Your task to perform on an android device: Open calendar and show me the fourth week of next month Image 0: 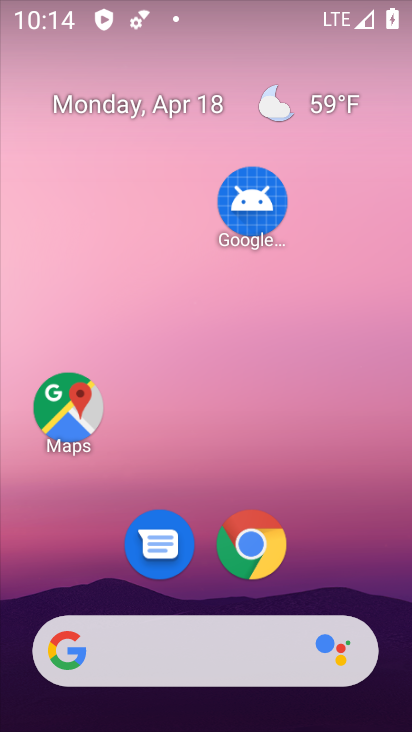
Step 0: drag from (352, 495) to (349, 198)
Your task to perform on an android device: Open calendar and show me the fourth week of next month Image 1: 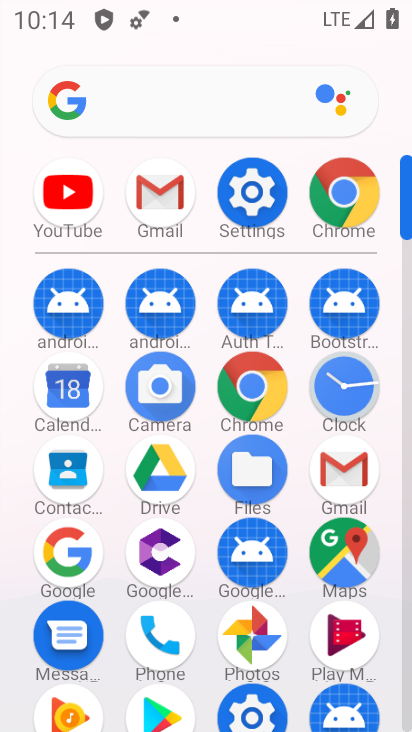
Step 1: drag from (185, 665) to (240, 359)
Your task to perform on an android device: Open calendar and show me the fourth week of next month Image 2: 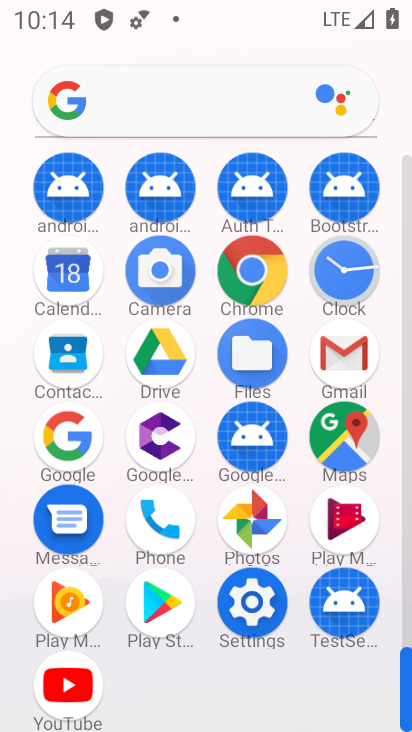
Step 2: click (58, 270)
Your task to perform on an android device: Open calendar and show me the fourth week of next month Image 3: 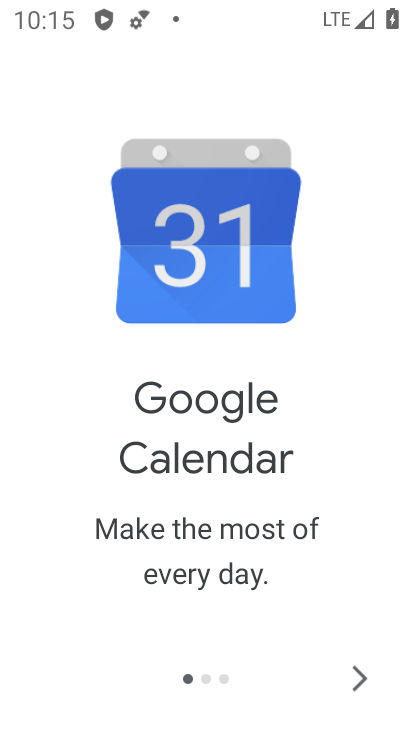
Step 3: click (333, 667)
Your task to perform on an android device: Open calendar and show me the fourth week of next month Image 4: 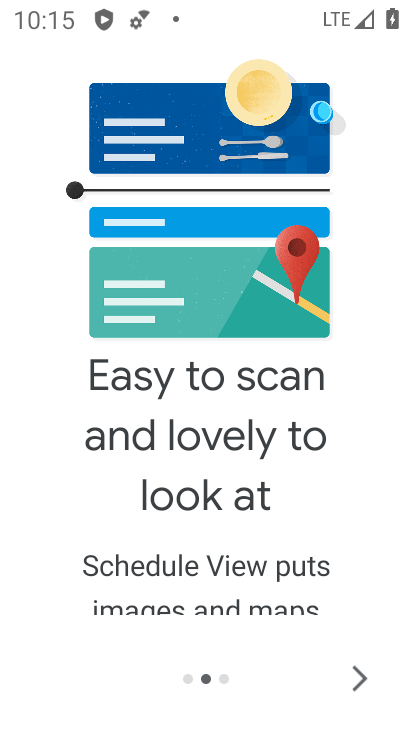
Step 4: click (353, 676)
Your task to perform on an android device: Open calendar and show me the fourth week of next month Image 5: 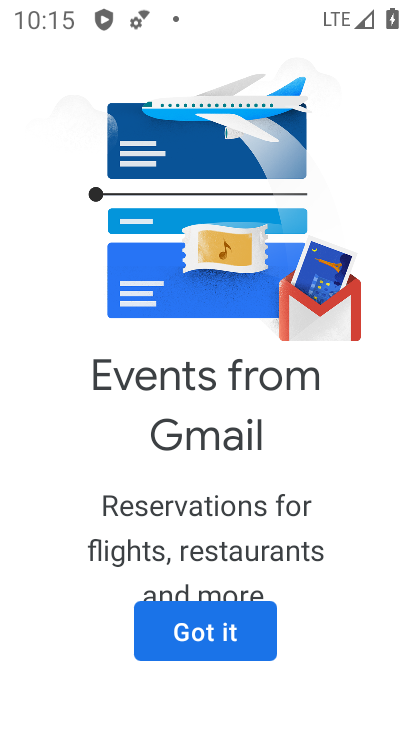
Step 5: click (190, 621)
Your task to perform on an android device: Open calendar and show me the fourth week of next month Image 6: 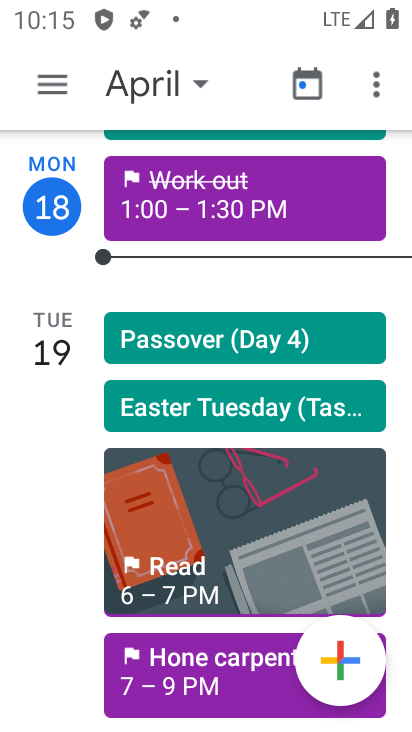
Step 6: click (42, 90)
Your task to perform on an android device: Open calendar and show me the fourth week of next month Image 7: 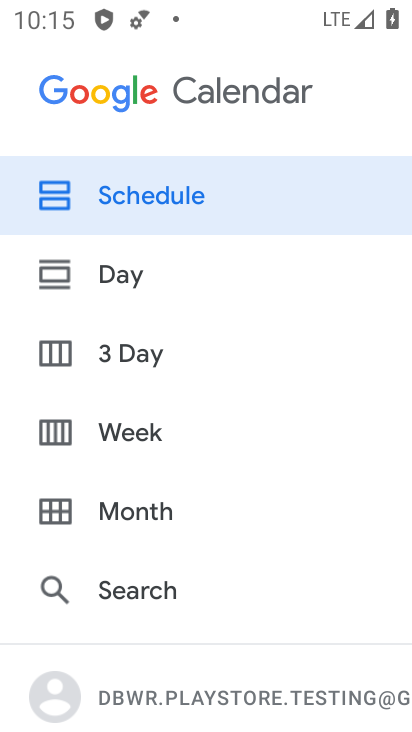
Step 7: click (156, 508)
Your task to perform on an android device: Open calendar and show me the fourth week of next month Image 8: 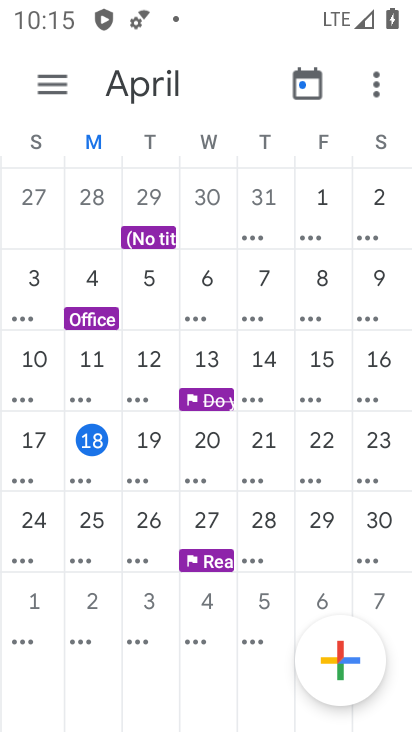
Step 8: task complete